Your task to perform on an android device: turn on sleep mode Image 0: 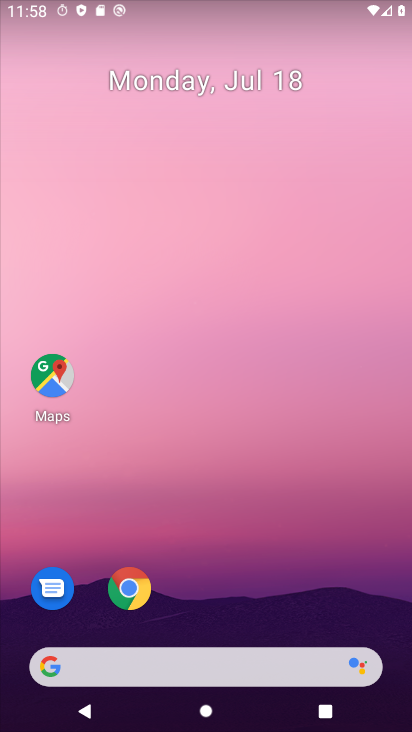
Step 0: drag from (248, 608) to (234, 111)
Your task to perform on an android device: turn on sleep mode Image 1: 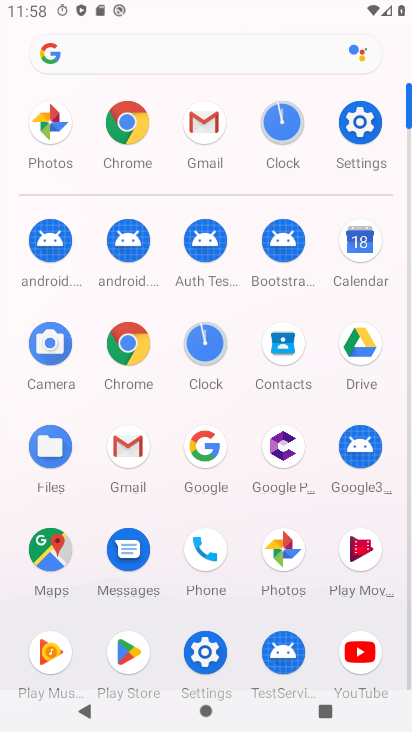
Step 1: click (362, 123)
Your task to perform on an android device: turn on sleep mode Image 2: 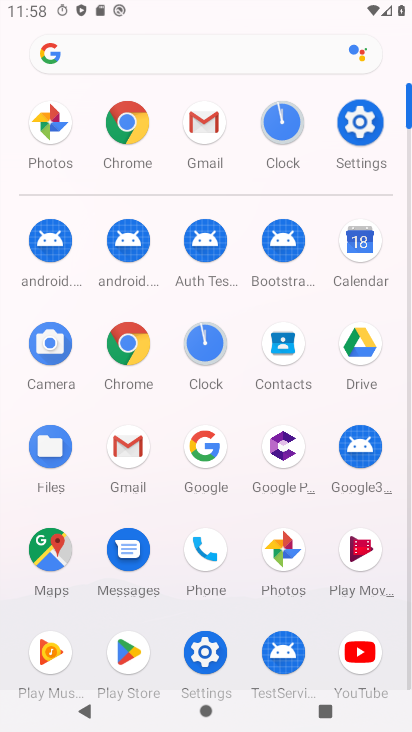
Step 2: click (362, 122)
Your task to perform on an android device: turn on sleep mode Image 3: 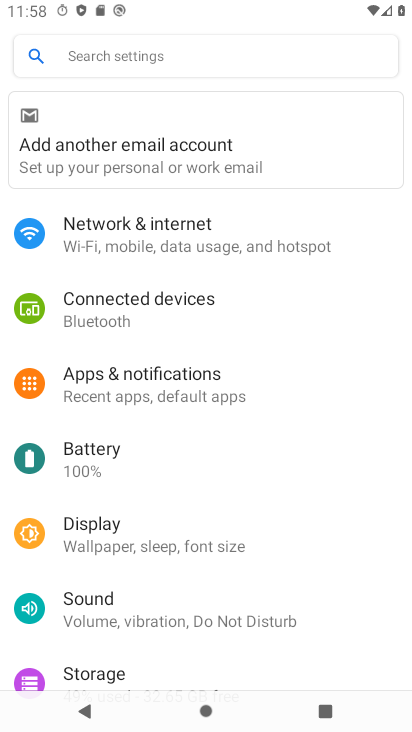
Step 3: click (105, 533)
Your task to perform on an android device: turn on sleep mode Image 4: 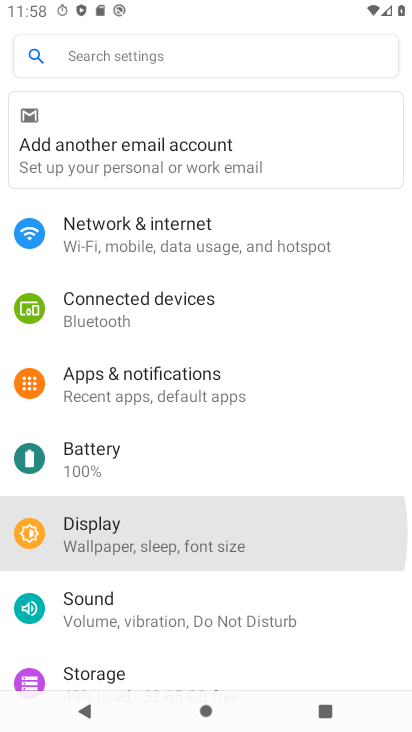
Step 4: click (105, 533)
Your task to perform on an android device: turn on sleep mode Image 5: 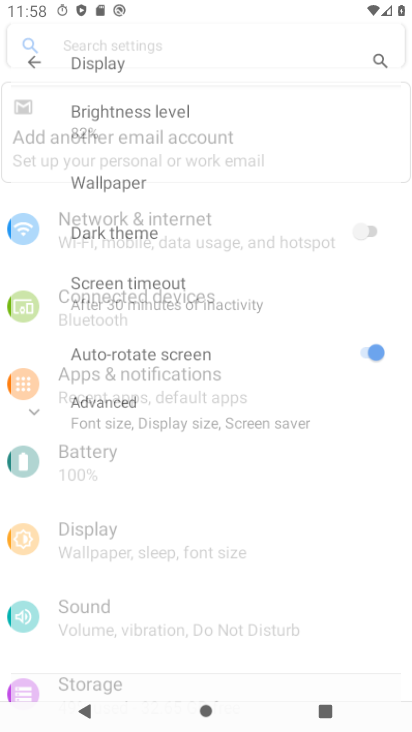
Step 5: click (105, 533)
Your task to perform on an android device: turn on sleep mode Image 6: 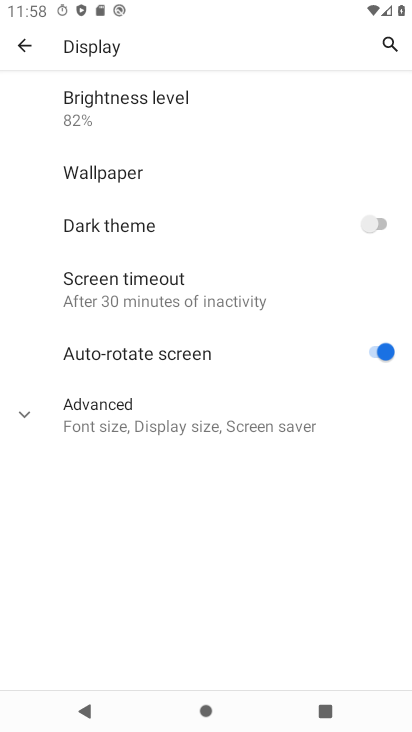
Step 6: click (105, 533)
Your task to perform on an android device: turn on sleep mode Image 7: 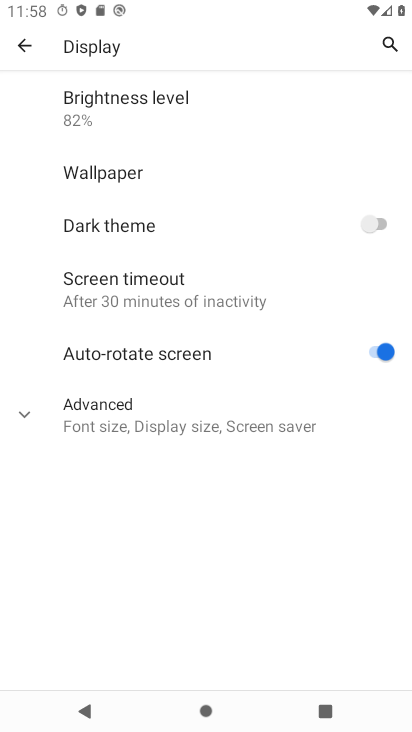
Step 7: click (124, 290)
Your task to perform on an android device: turn on sleep mode Image 8: 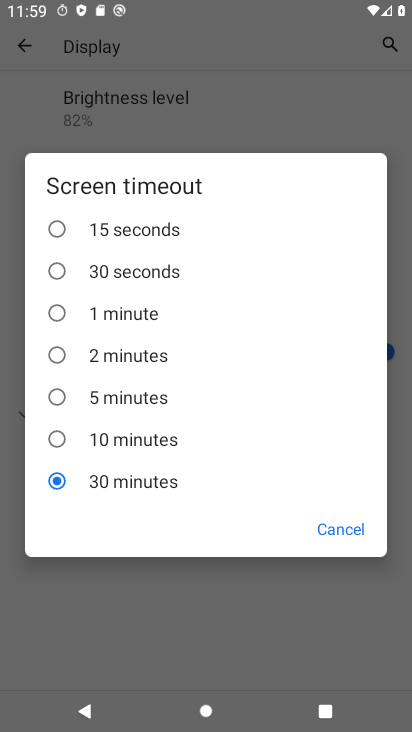
Step 8: click (333, 532)
Your task to perform on an android device: turn on sleep mode Image 9: 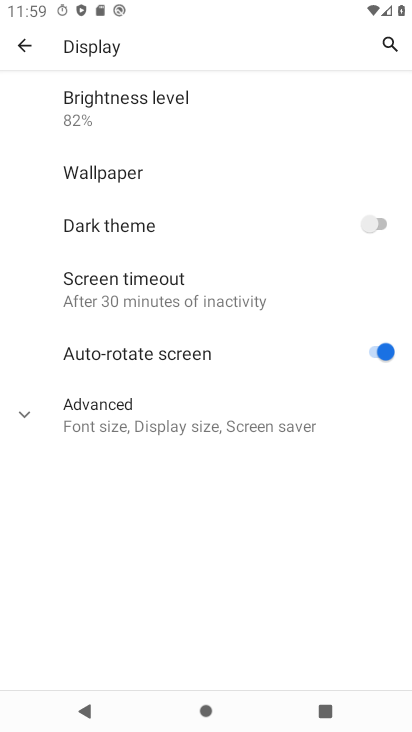
Step 9: task complete